Your task to perform on an android device: set an alarm Image 0: 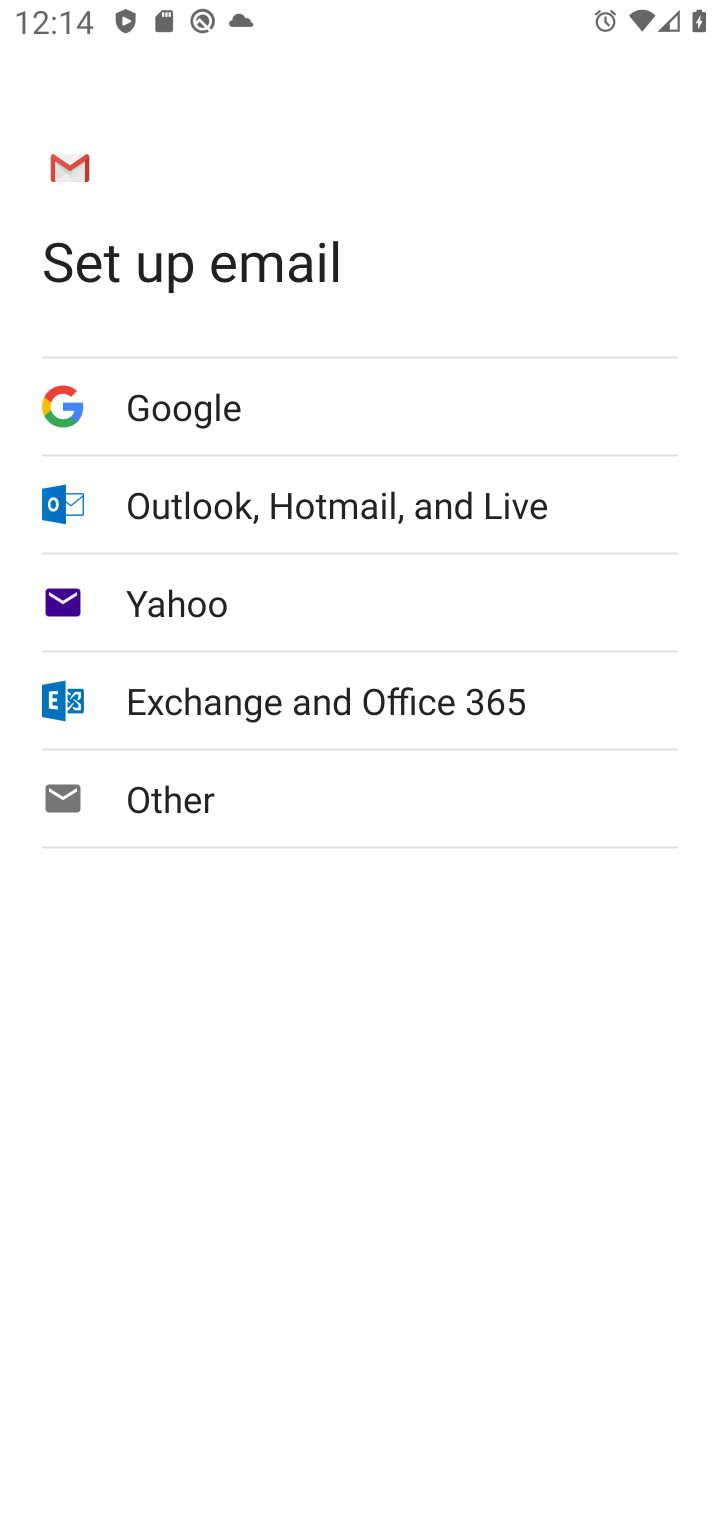
Step 0: press home button
Your task to perform on an android device: set an alarm Image 1: 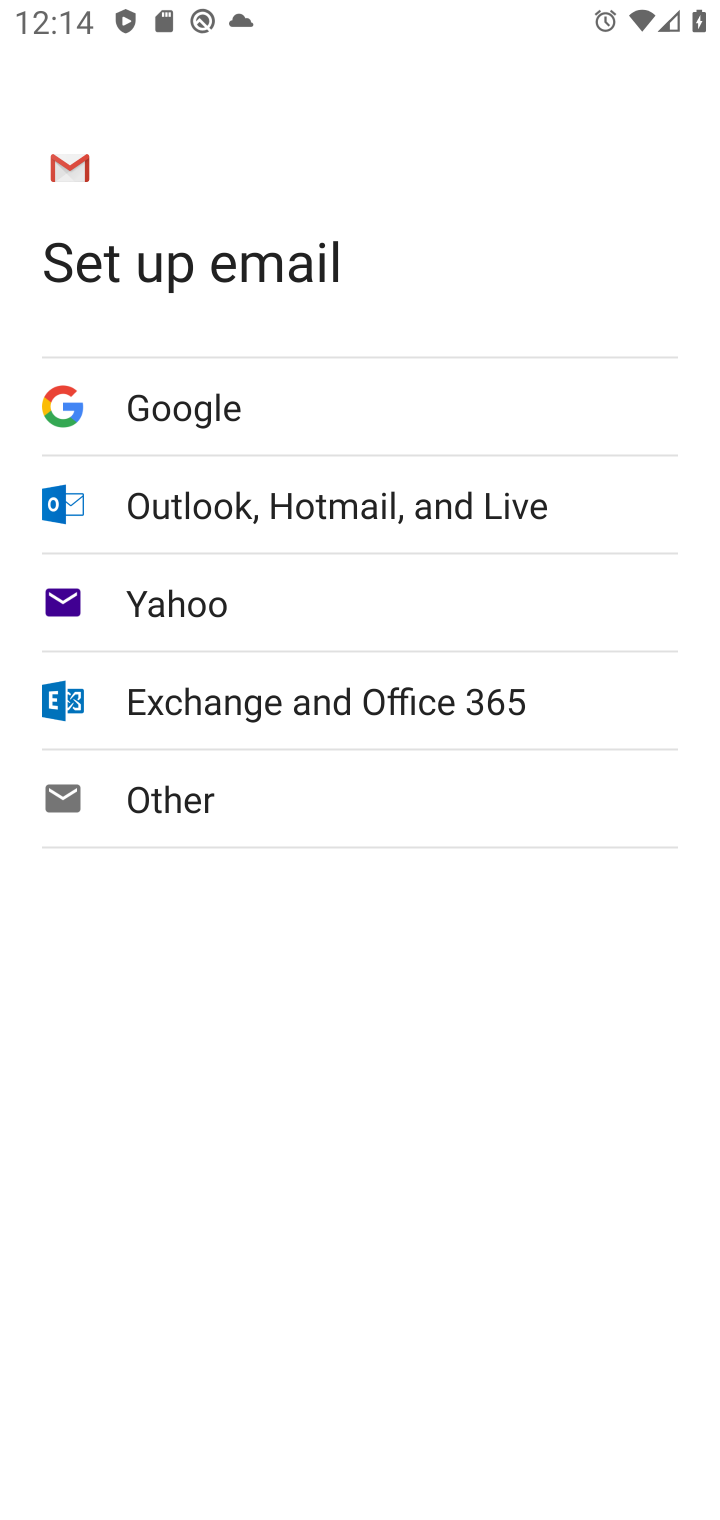
Step 1: press home button
Your task to perform on an android device: set an alarm Image 2: 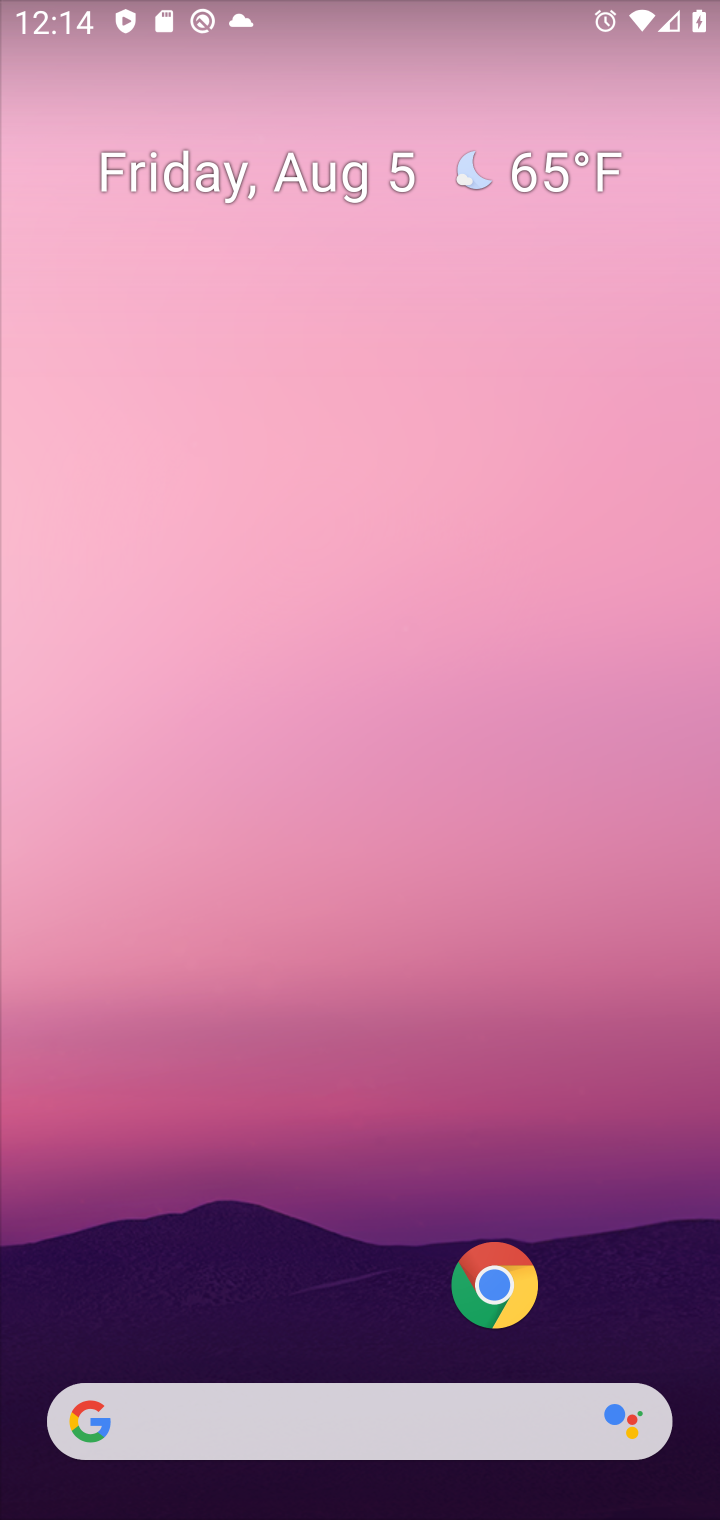
Step 2: drag from (187, 1214) to (269, 166)
Your task to perform on an android device: set an alarm Image 3: 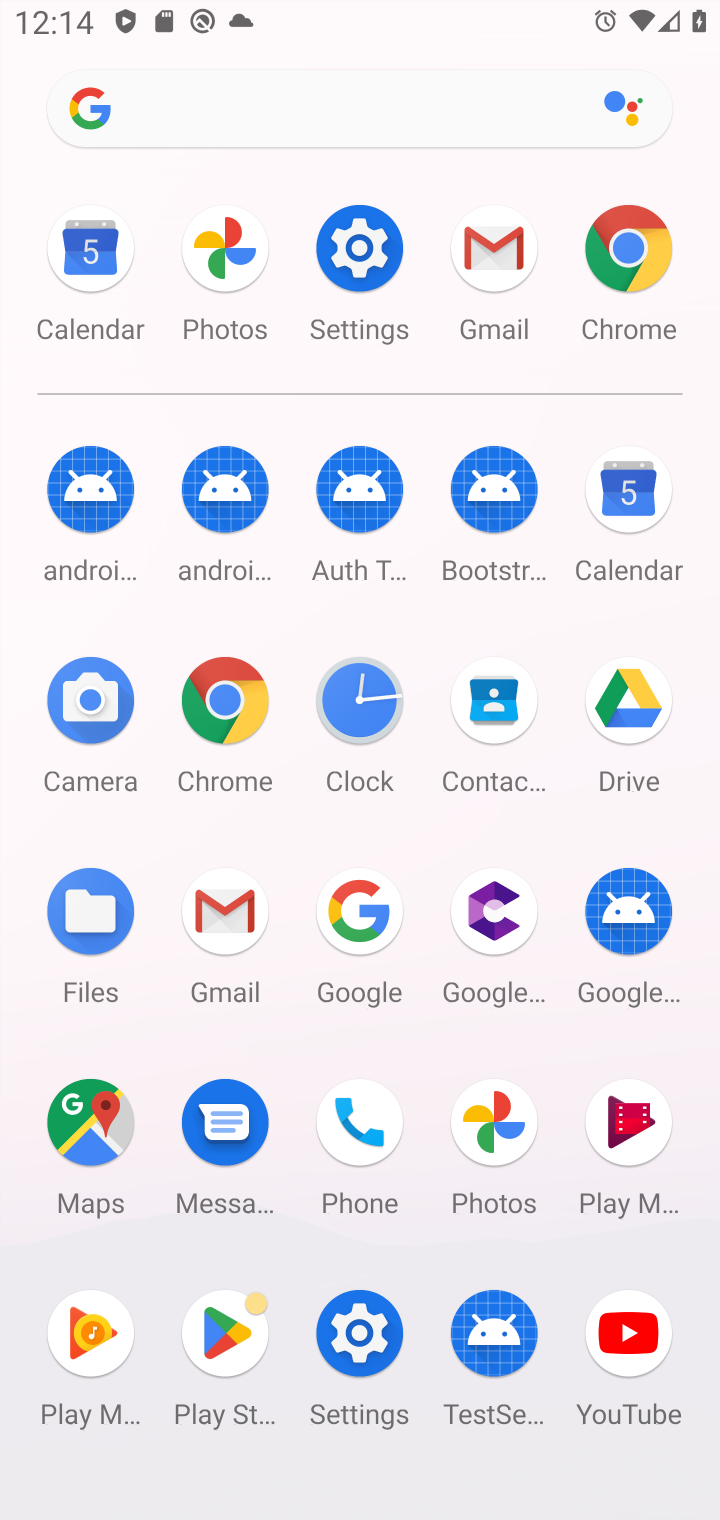
Step 3: click (363, 681)
Your task to perform on an android device: set an alarm Image 4: 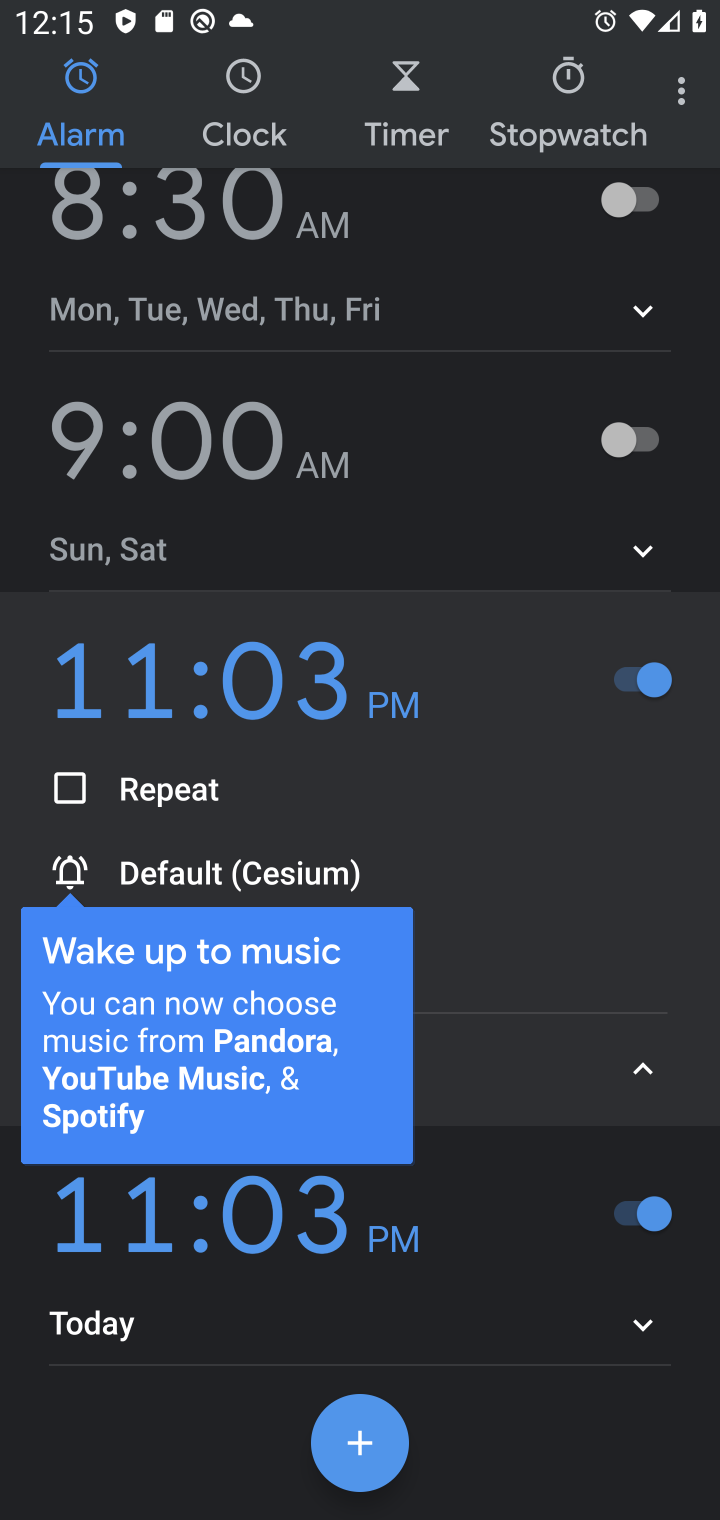
Step 4: click (354, 1481)
Your task to perform on an android device: set an alarm Image 5: 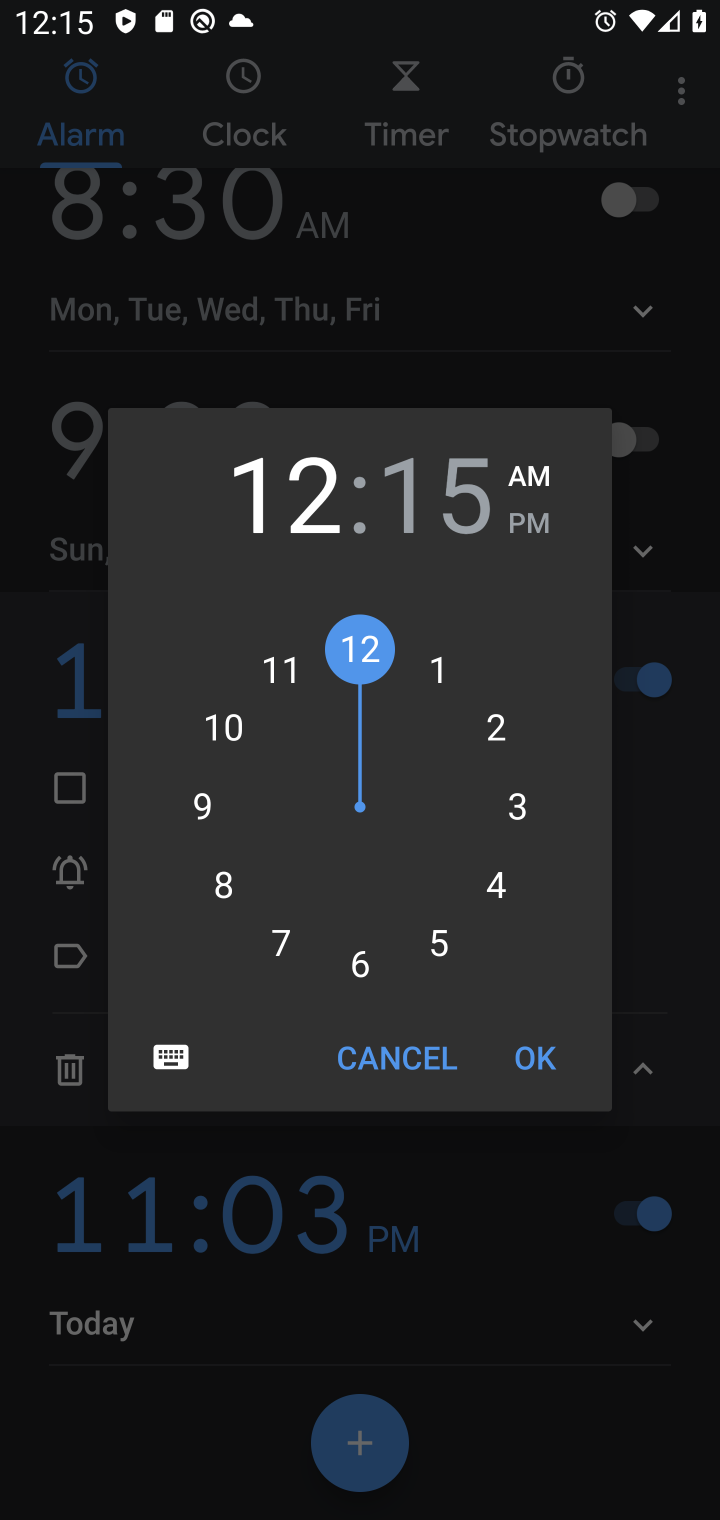
Step 5: click (552, 1085)
Your task to perform on an android device: set an alarm Image 6: 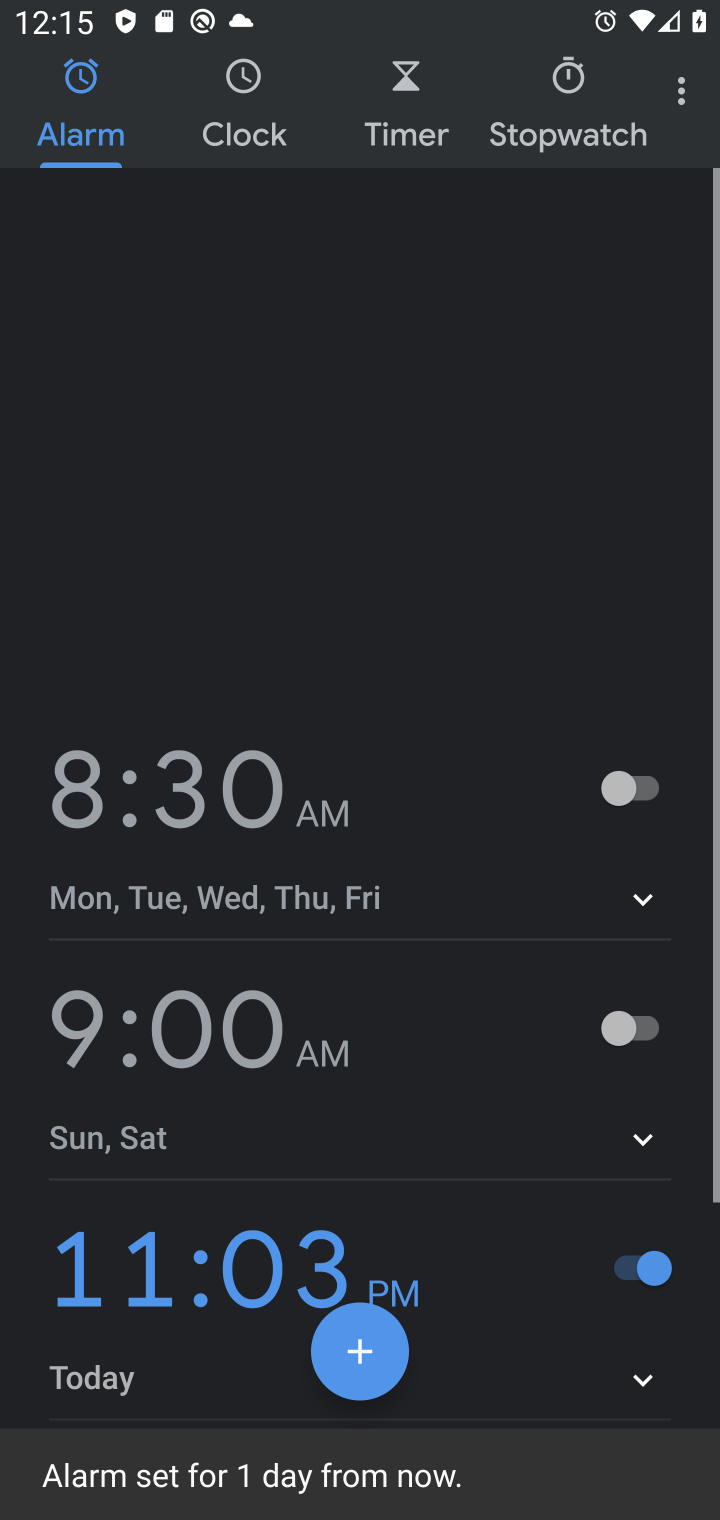
Step 6: task complete